Your task to perform on an android device: turn on sleep mode Image 0: 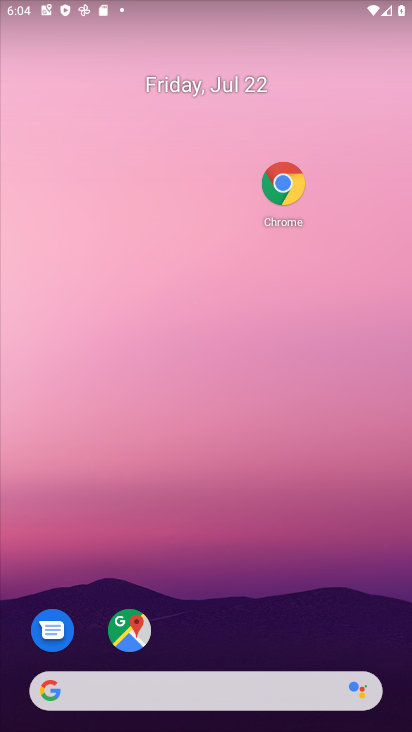
Step 0: drag from (233, 615) to (243, 60)
Your task to perform on an android device: turn on sleep mode Image 1: 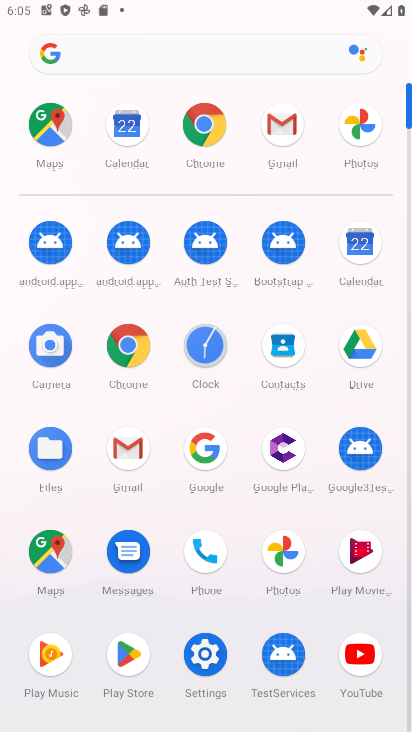
Step 1: task complete